Your task to perform on an android device: Search for seafood restaurants on Google Maps Image 0: 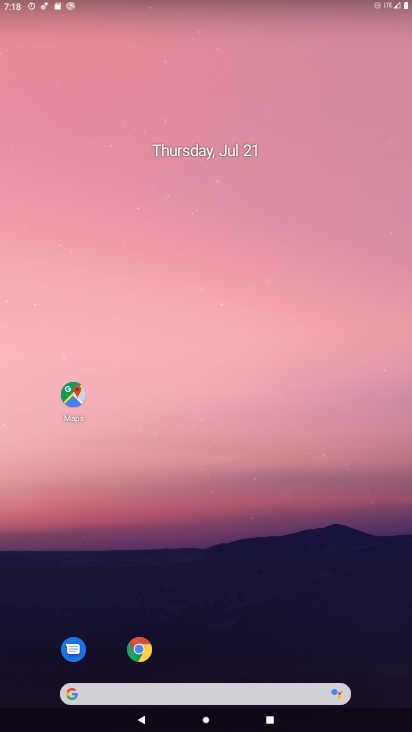
Step 0: drag from (324, 612) to (222, 26)
Your task to perform on an android device: Search for seafood restaurants on Google Maps Image 1: 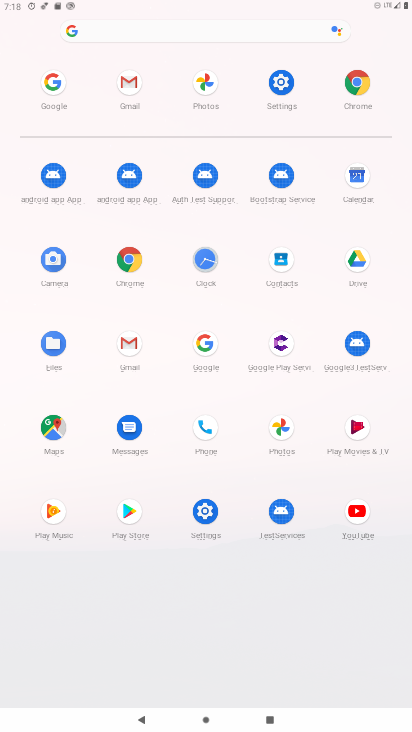
Step 1: click (55, 420)
Your task to perform on an android device: Search for seafood restaurants on Google Maps Image 2: 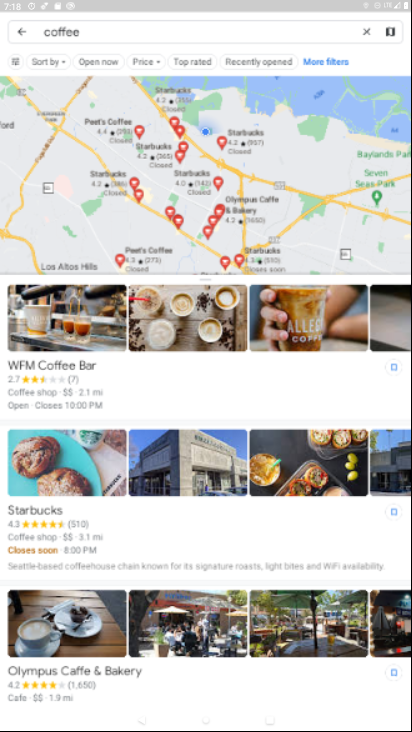
Step 2: click (110, 28)
Your task to perform on an android device: Search for seafood restaurants on Google Maps Image 3: 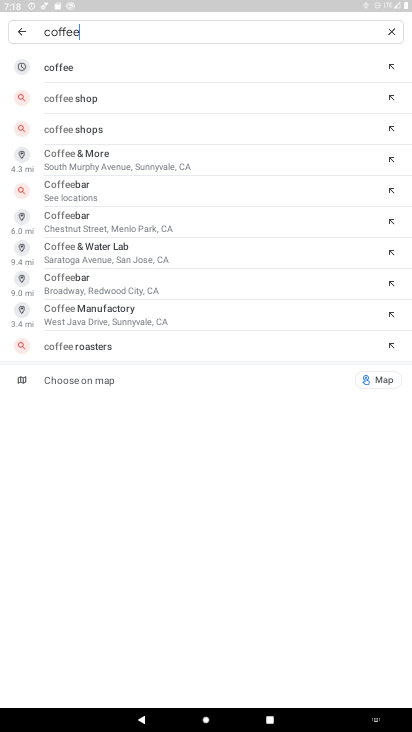
Step 3: click (390, 27)
Your task to perform on an android device: Search for seafood restaurants on Google Maps Image 4: 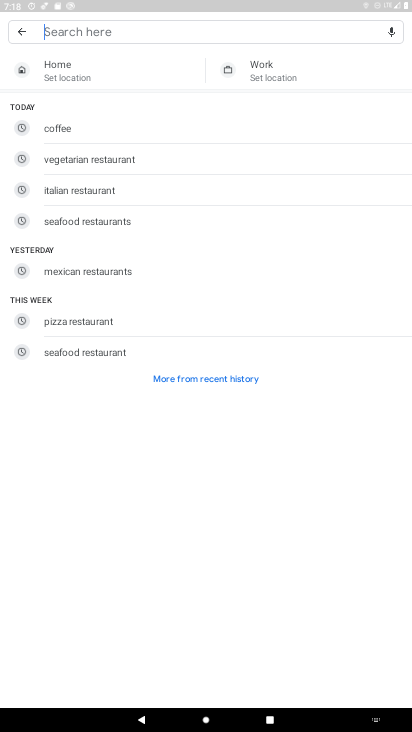
Step 4: click (78, 226)
Your task to perform on an android device: Search for seafood restaurants on Google Maps Image 5: 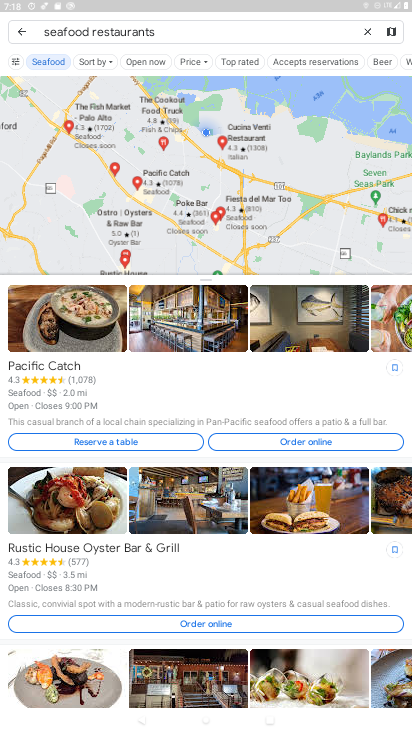
Step 5: task complete